Your task to perform on an android device: open app "ZOOM Cloud Meetings" (install if not already installed) and go to login screen Image 0: 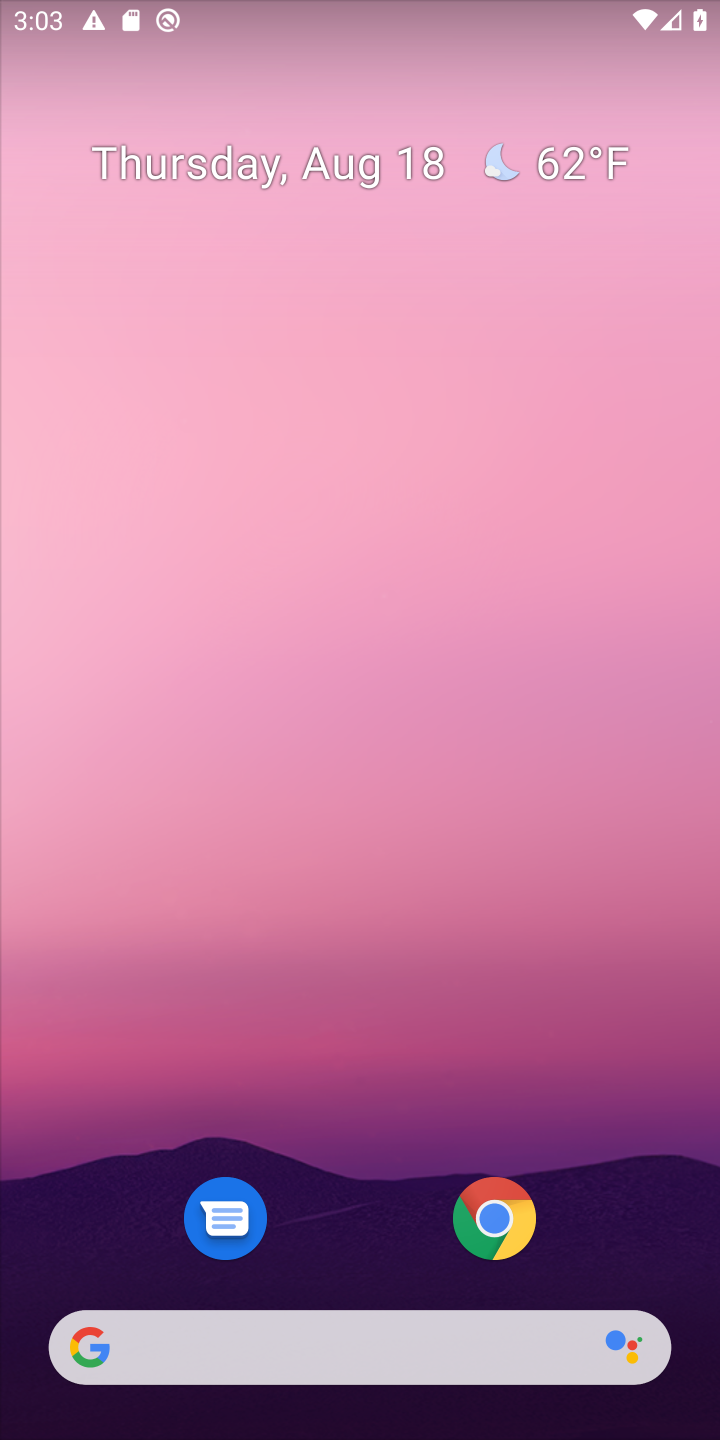
Step 0: drag from (390, 955) to (397, 401)
Your task to perform on an android device: open app "ZOOM Cloud Meetings" (install if not already installed) and go to login screen Image 1: 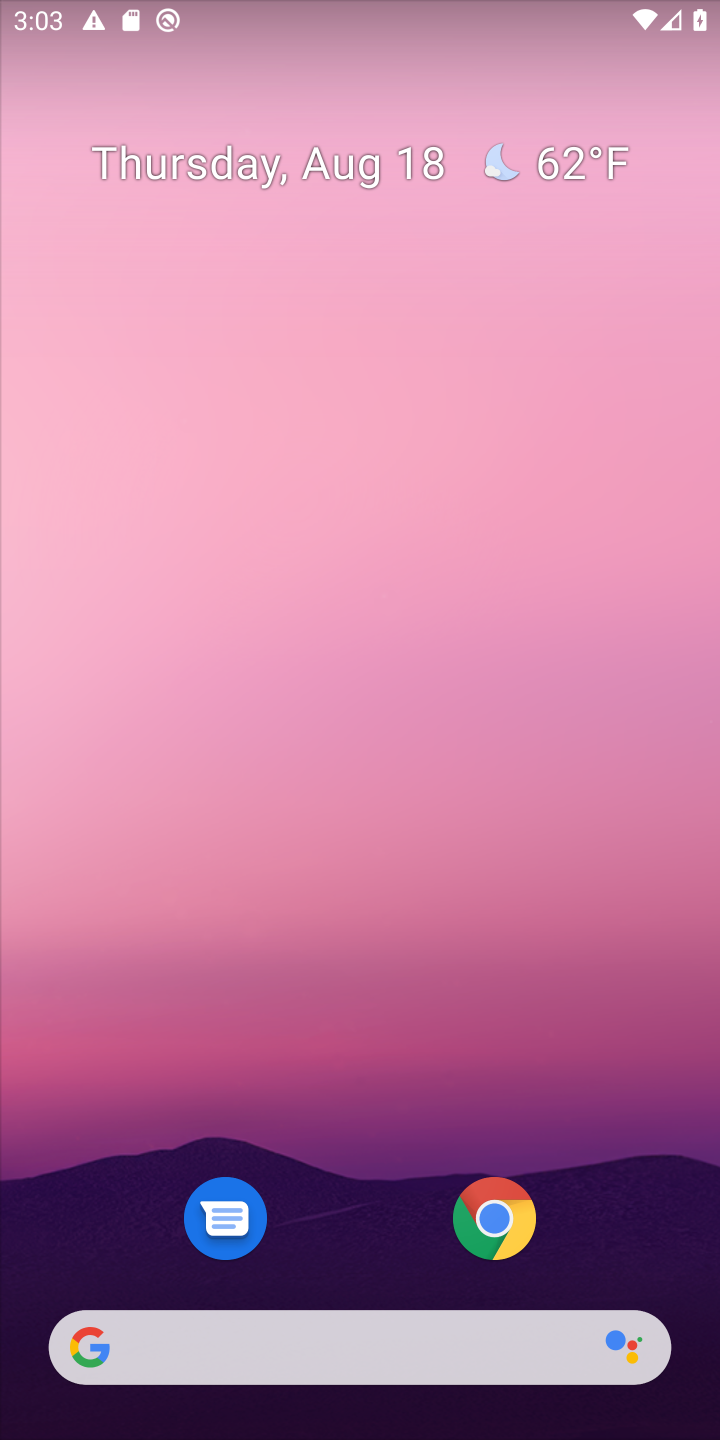
Step 1: drag from (400, 951) to (404, 341)
Your task to perform on an android device: open app "ZOOM Cloud Meetings" (install if not already installed) and go to login screen Image 2: 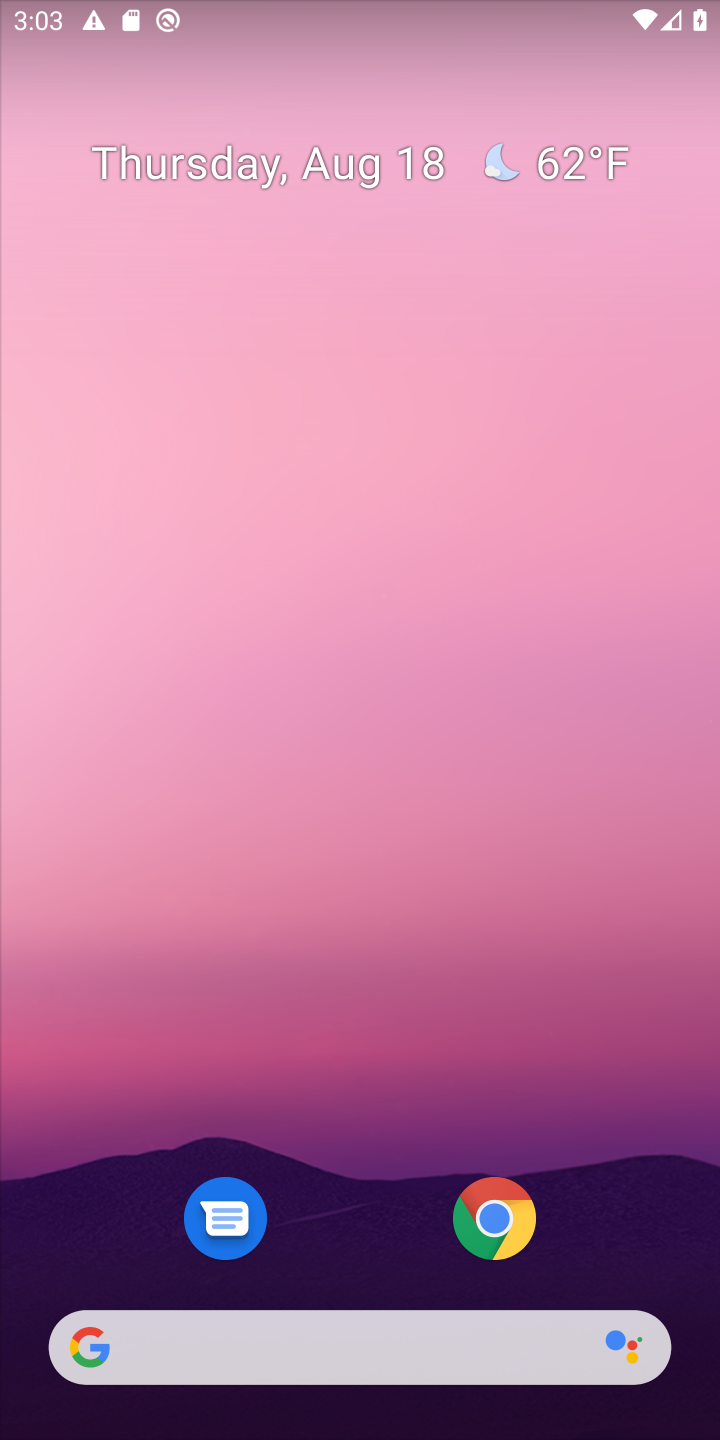
Step 2: drag from (389, 791) to (406, 298)
Your task to perform on an android device: open app "ZOOM Cloud Meetings" (install if not already installed) and go to login screen Image 3: 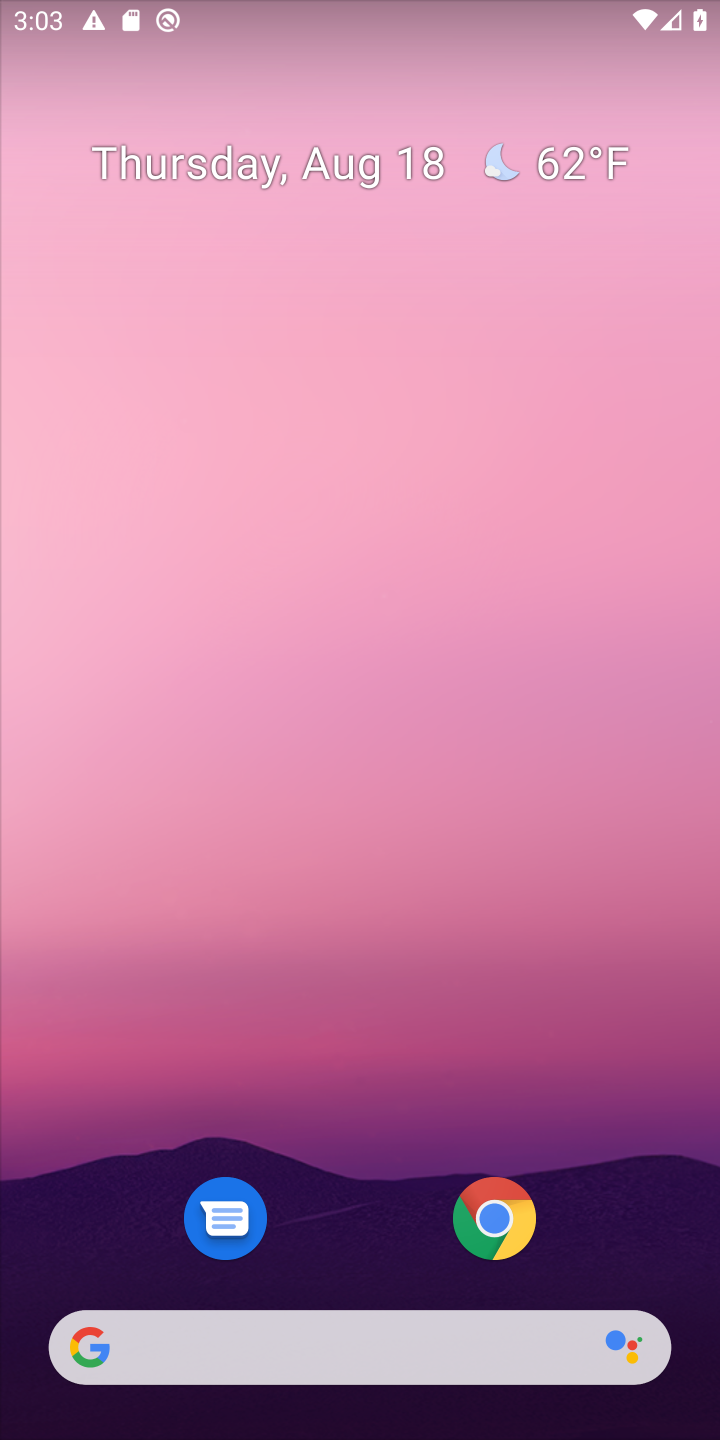
Step 3: drag from (367, 1109) to (374, 220)
Your task to perform on an android device: open app "ZOOM Cloud Meetings" (install if not already installed) and go to login screen Image 4: 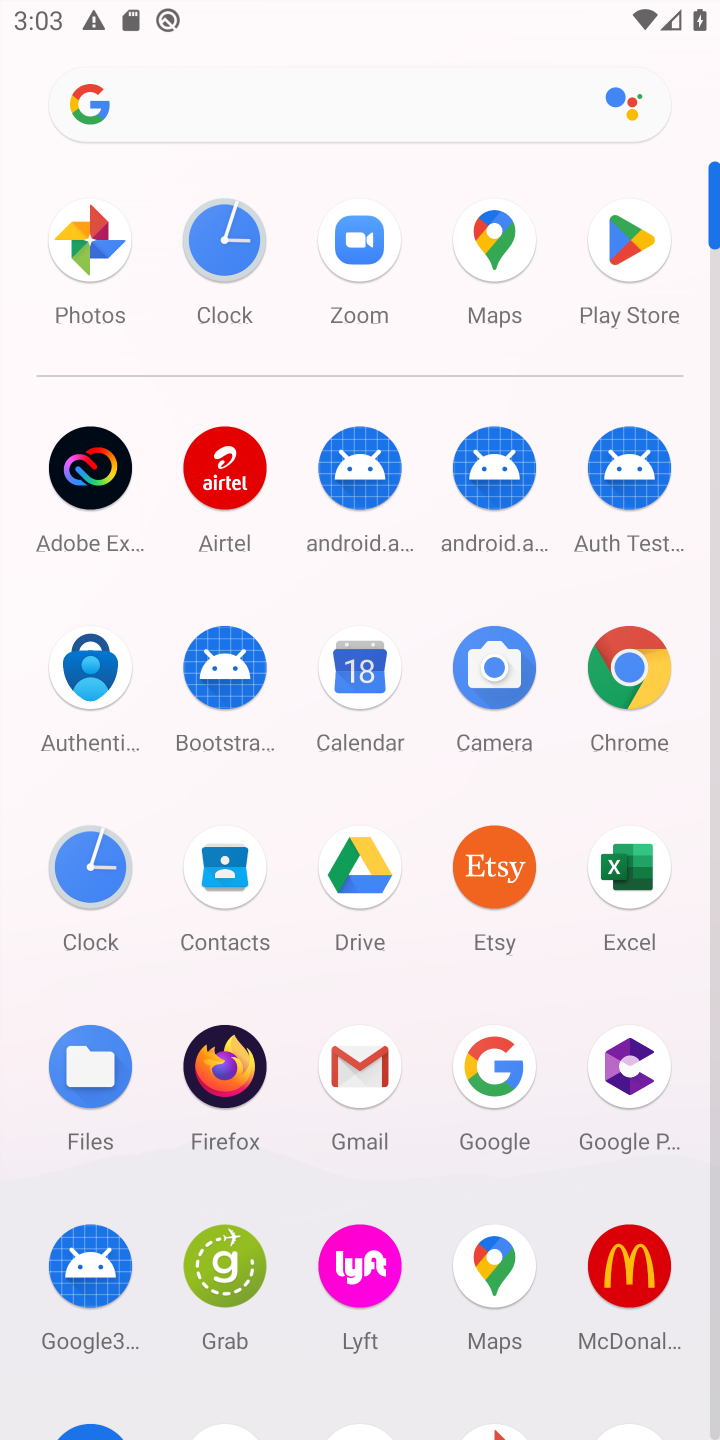
Step 4: click (628, 269)
Your task to perform on an android device: open app "ZOOM Cloud Meetings" (install if not already installed) and go to login screen Image 5: 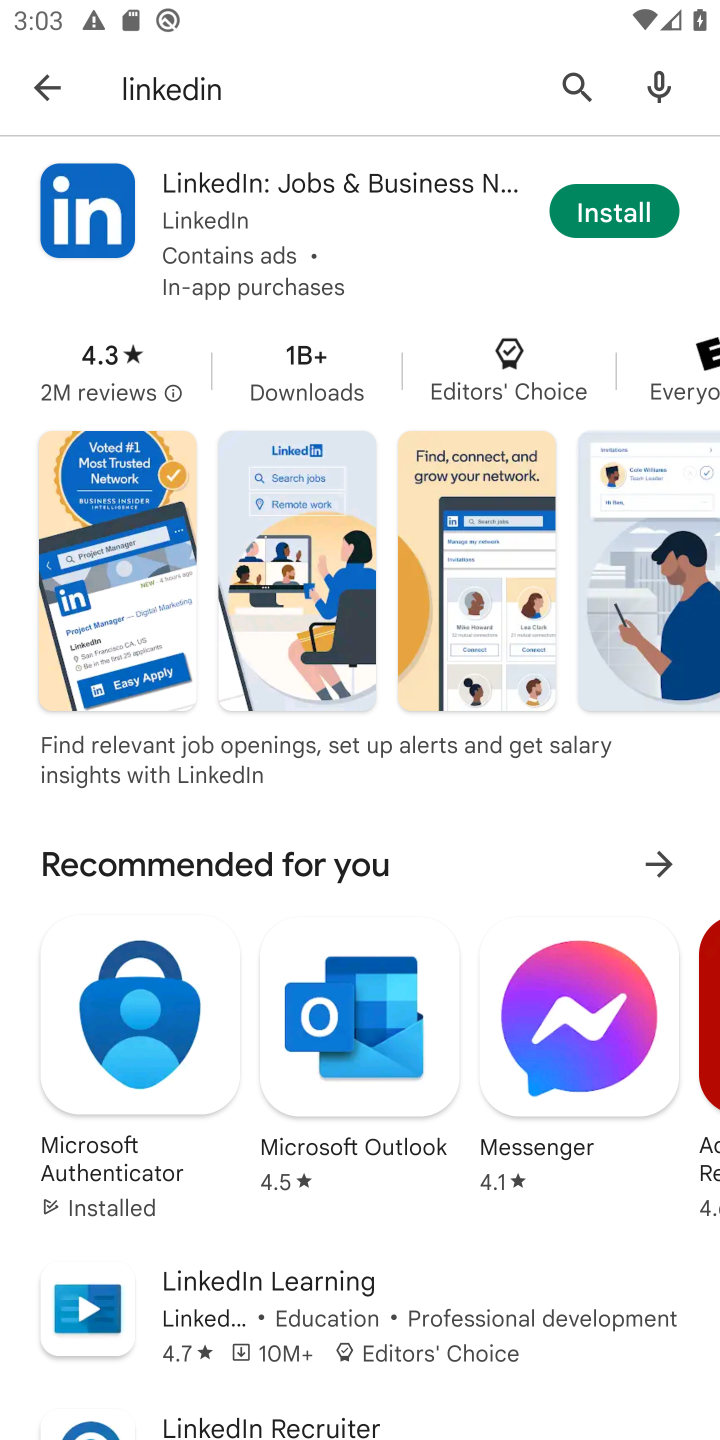
Step 5: click (563, 84)
Your task to perform on an android device: open app "ZOOM Cloud Meetings" (install if not already installed) and go to login screen Image 6: 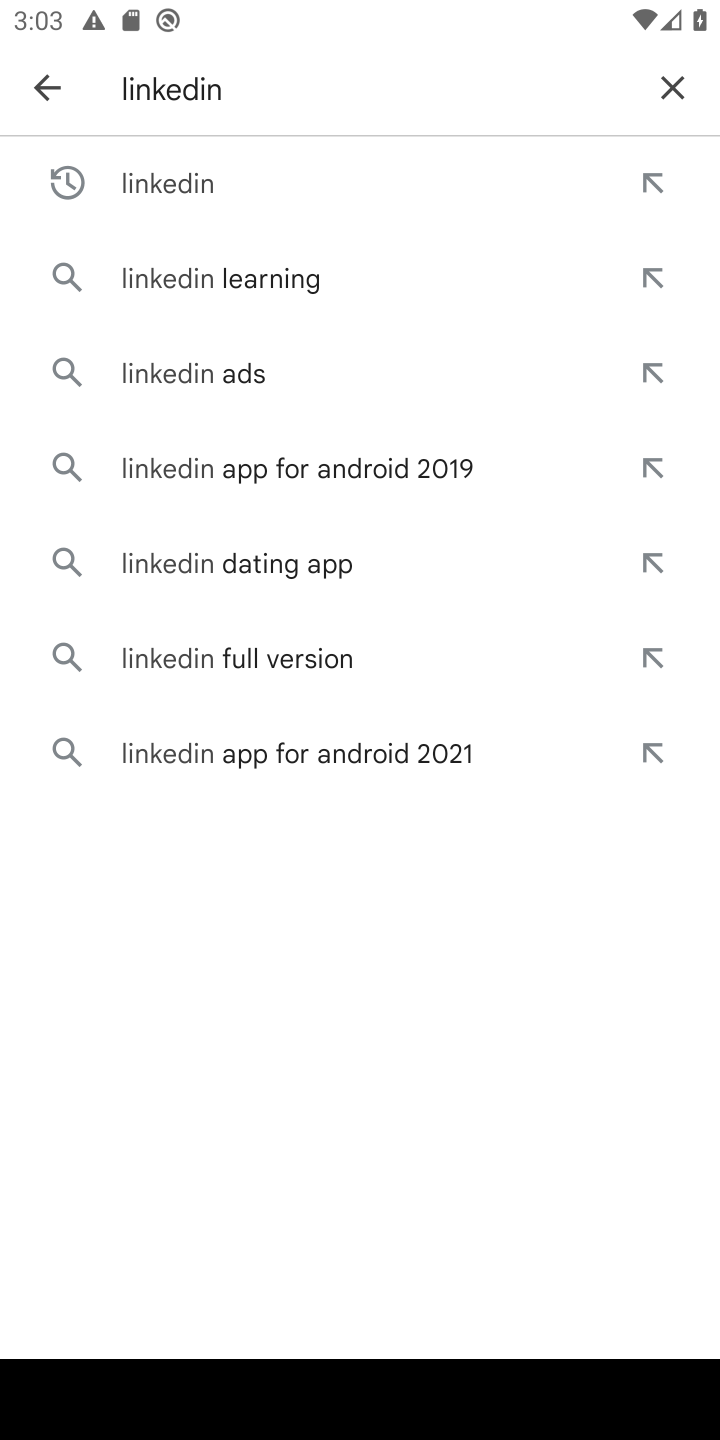
Step 6: click (664, 95)
Your task to perform on an android device: open app "ZOOM Cloud Meetings" (install if not already installed) and go to login screen Image 7: 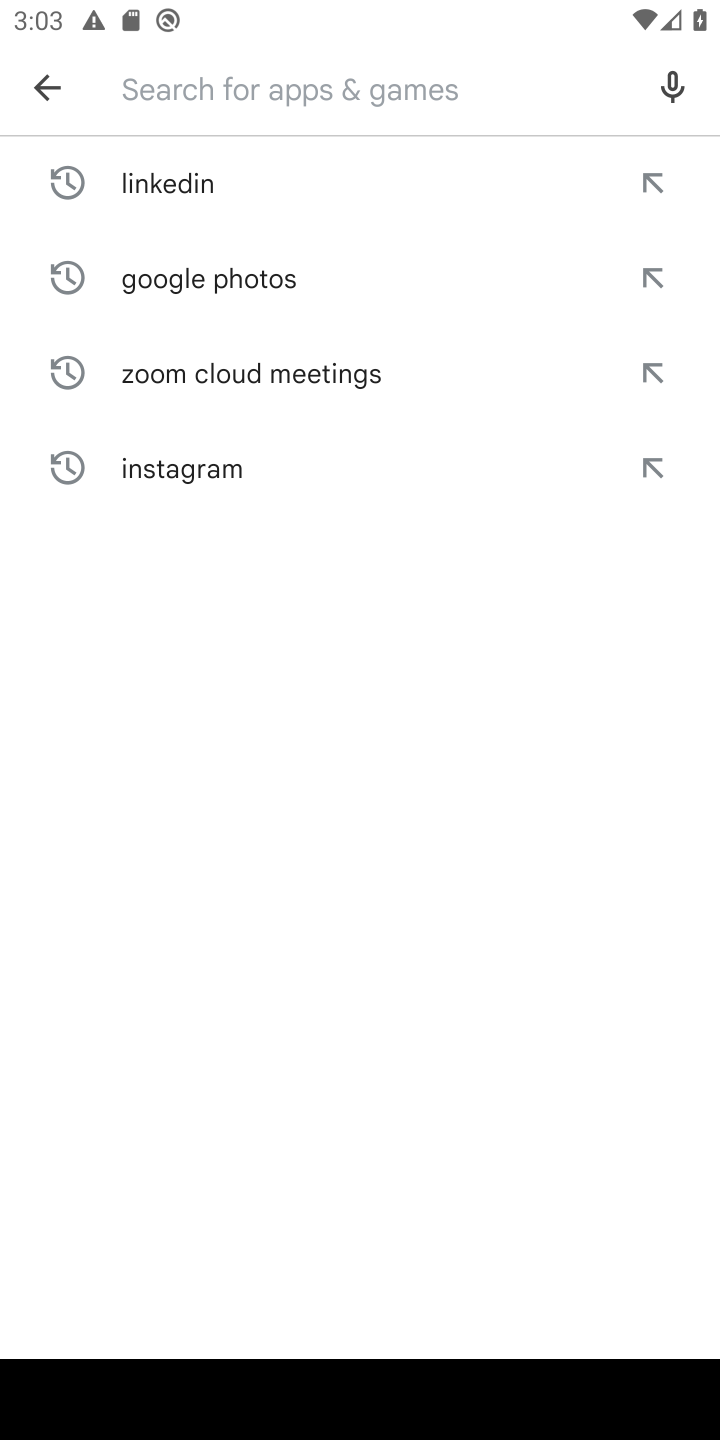
Step 7: type "ZOOM Cloud Meetings"
Your task to perform on an android device: open app "ZOOM Cloud Meetings" (install if not already installed) and go to login screen Image 8: 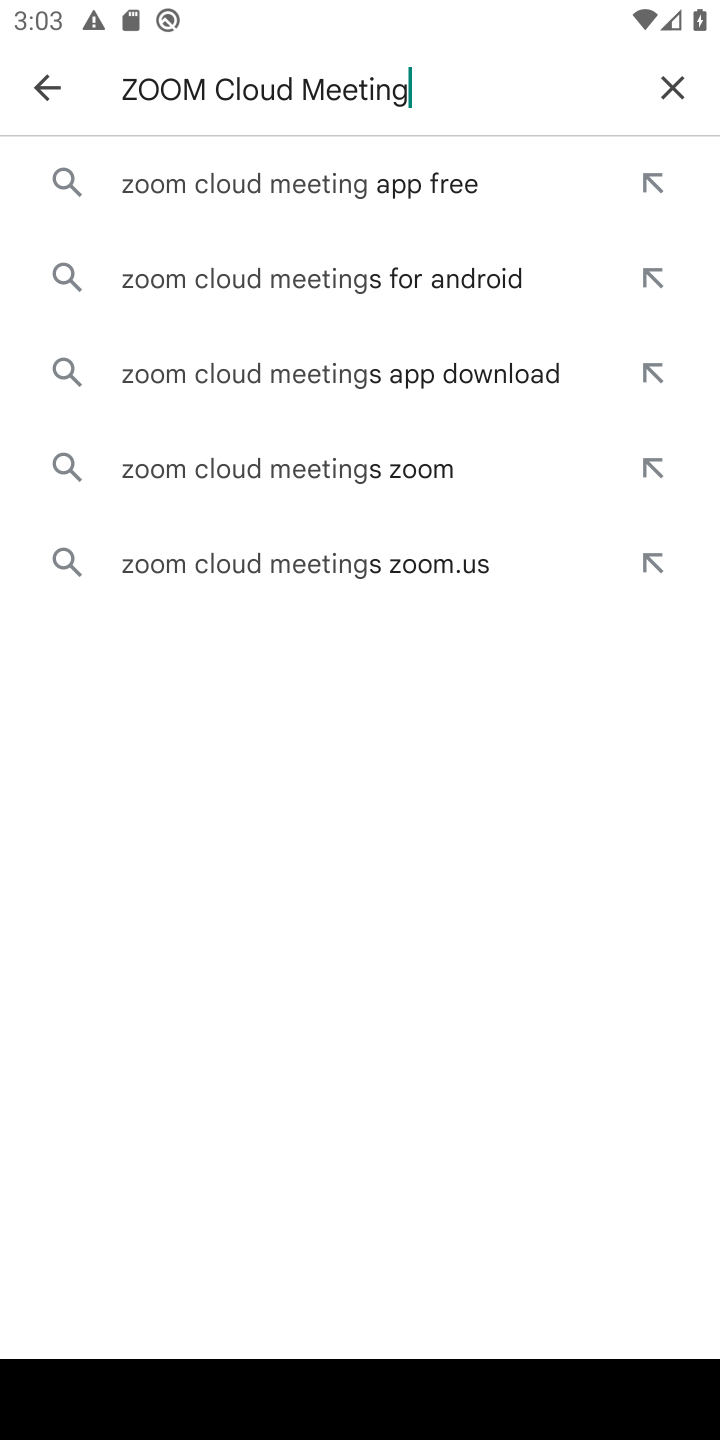
Step 8: type ""
Your task to perform on an android device: open app "ZOOM Cloud Meetings" (install if not already installed) and go to login screen Image 9: 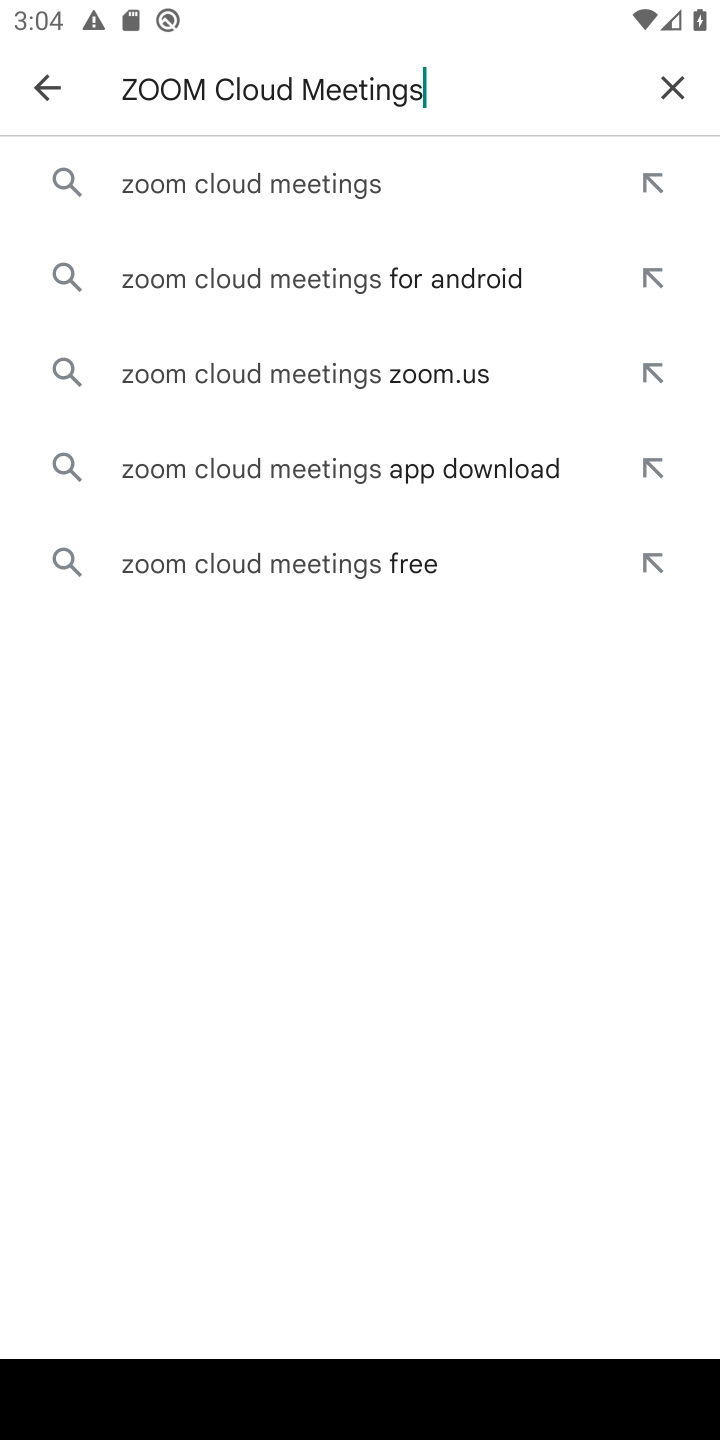
Step 9: click (253, 189)
Your task to perform on an android device: open app "ZOOM Cloud Meetings" (install if not already installed) and go to login screen Image 10: 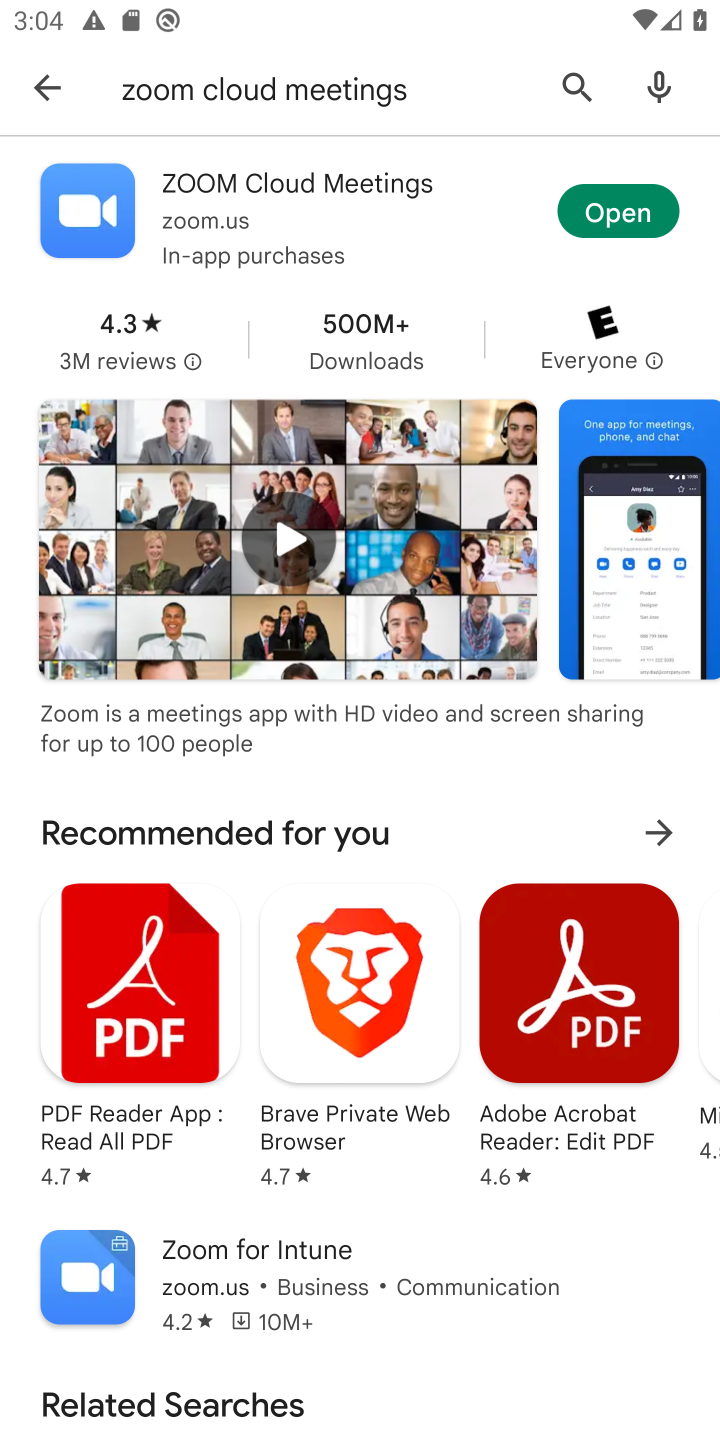
Step 10: click (640, 206)
Your task to perform on an android device: open app "ZOOM Cloud Meetings" (install if not already installed) and go to login screen Image 11: 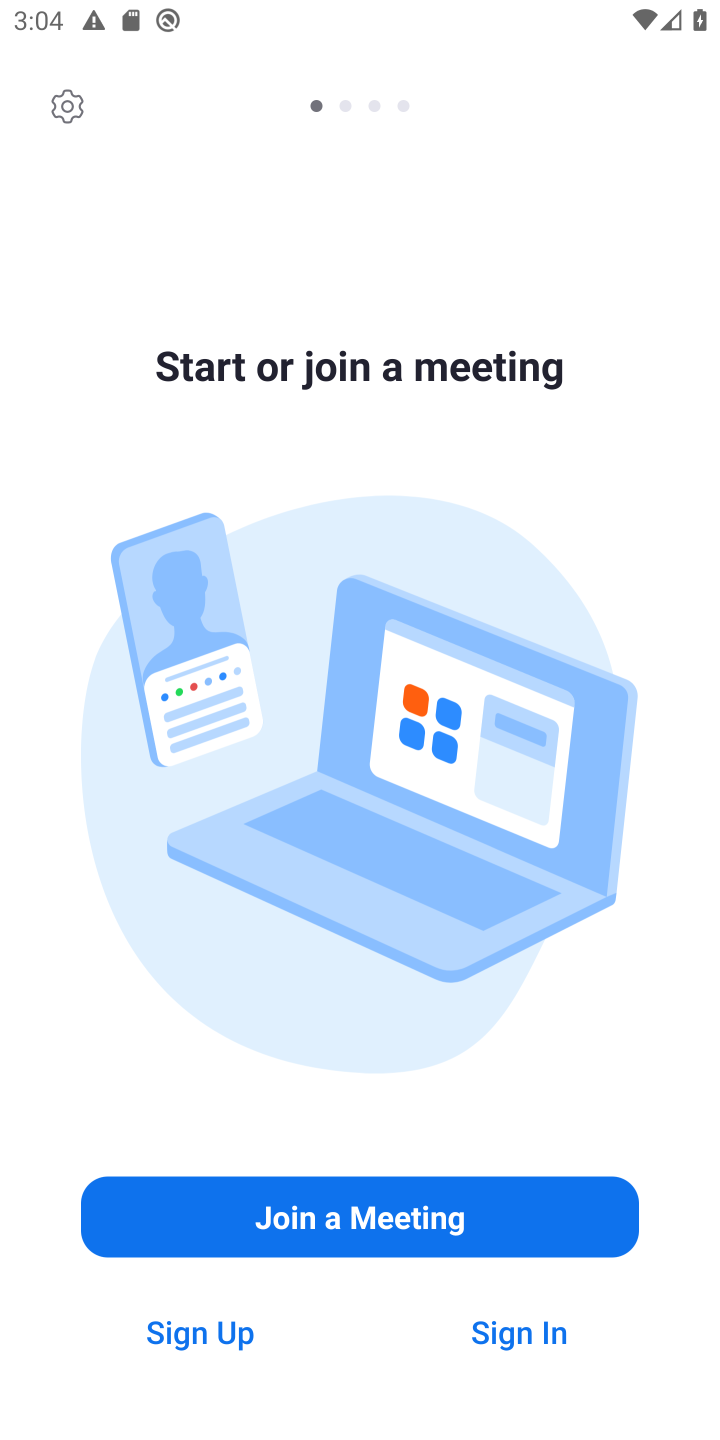
Step 11: task complete